Your task to perform on an android device: change your default location settings in chrome Image 0: 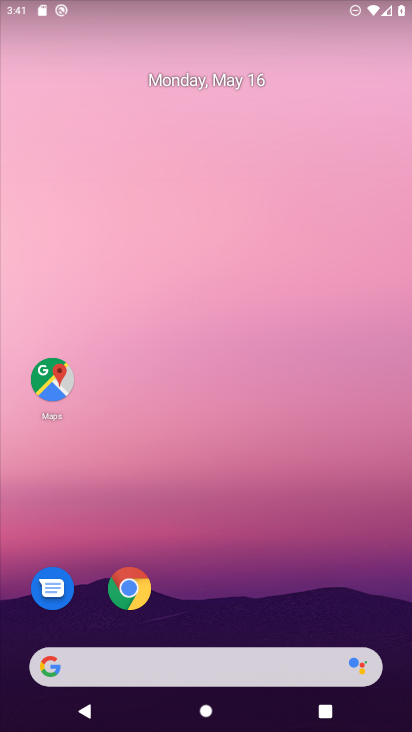
Step 0: click (127, 598)
Your task to perform on an android device: change your default location settings in chrome Image 1: 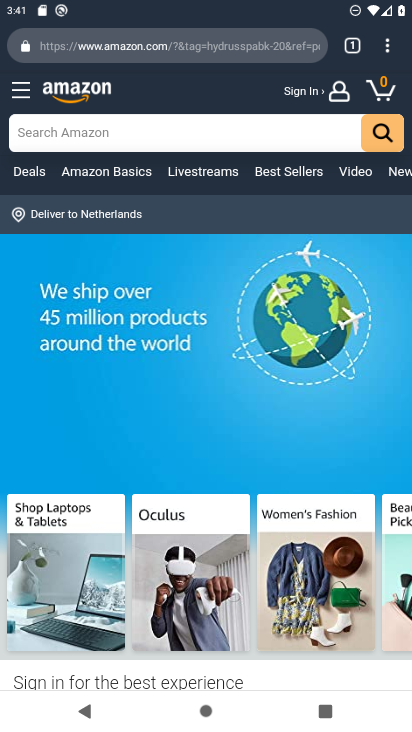
Step 1: click (386, 48)
Your task to perform on an android device: change your default location settings in chrome Image 2: 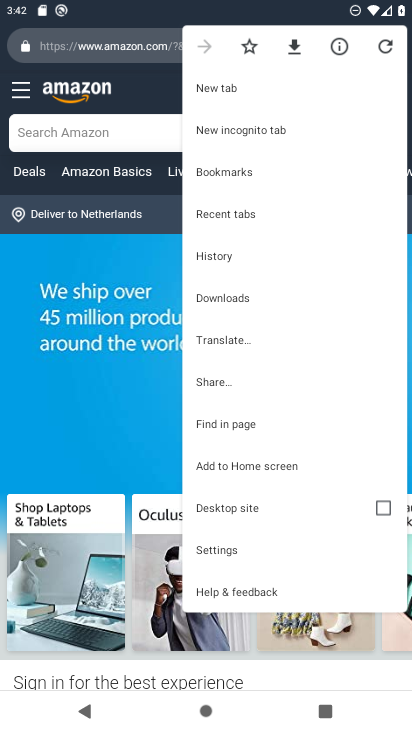
Step 2: click (218, 550)
Your task to perform on an android device: change your default location settings in chrome Image 3: 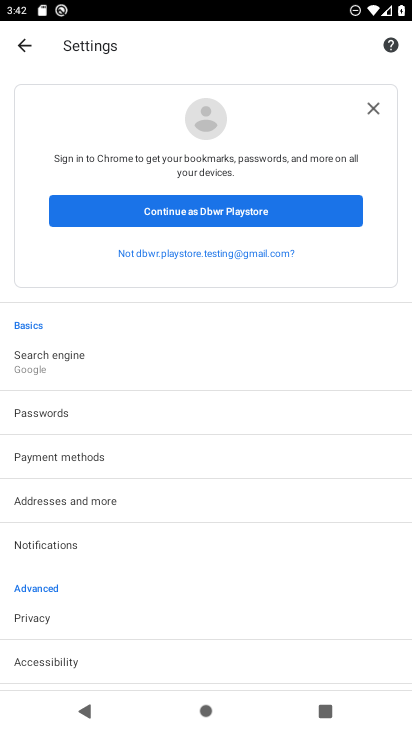
Step 3: drag from (92, 629) to (106, 383)
Your task to perform on an android device: change your default location settings in chrome Image 4: 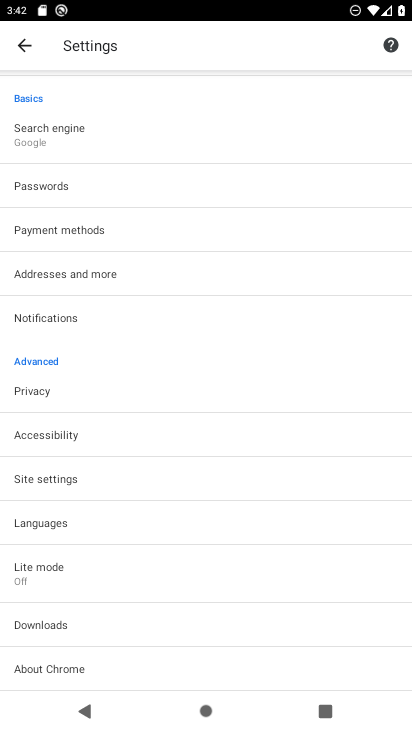
Step 4: click (54, 479)
Your task to perform on an android device: change your default location settings in chrome Image 5: 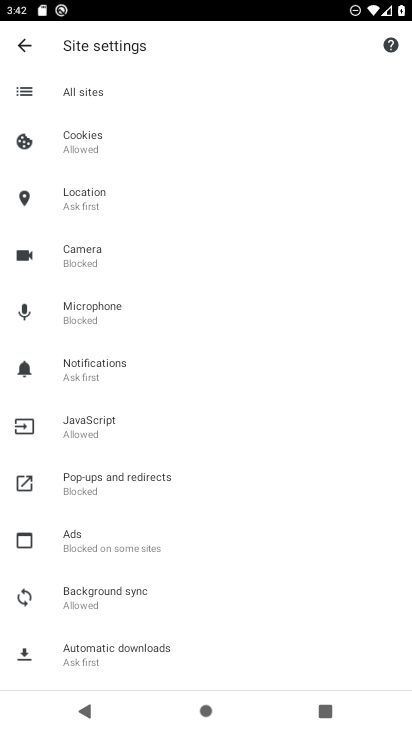
Step 5: click (80, 196)
Your task to perform on an android device: change your default location settings in chrome Image 6: 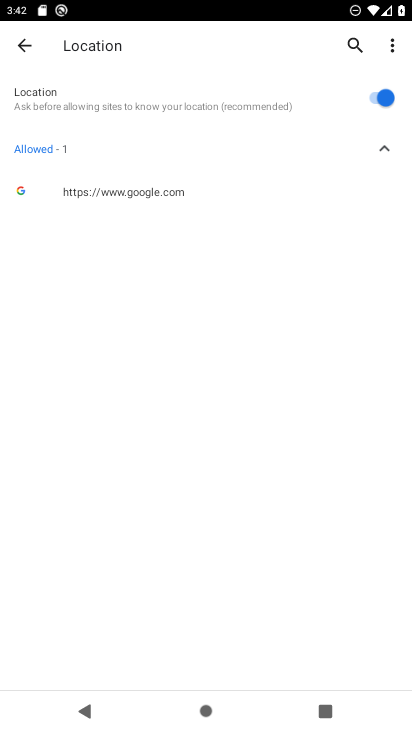
Step 6: click (391, 100)
Your task to perform on an android device: change your default location settings in chrome Image 7: 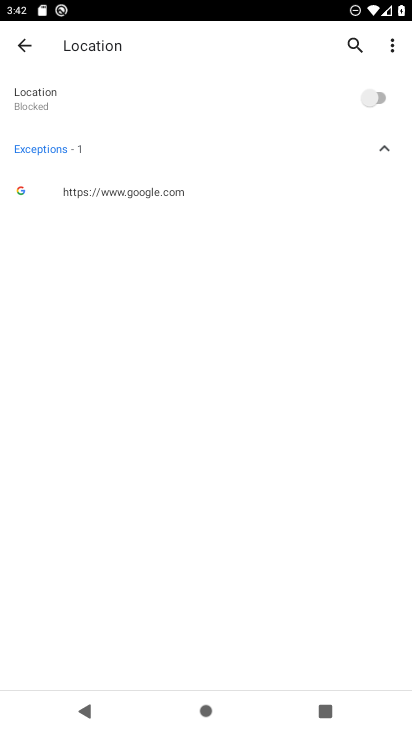
Step 7: task complete